Your task to perform on an android device: change your default location settings in chrome Image 0: 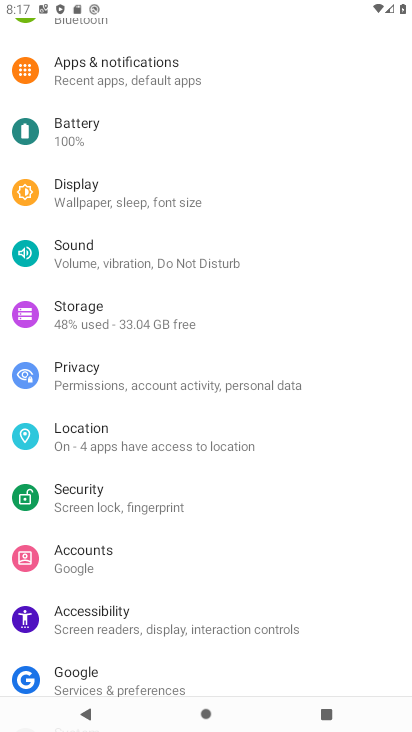
Step 0: press home button
Your task to perform on an android device: change your default location settings in chrome Image 1: 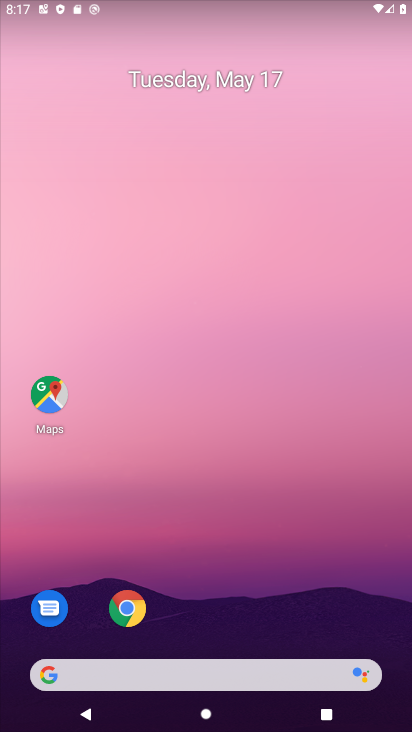
Step 1: drag from (366, 614) to (355, 128)
Your task to perform on an android device: change your default location settings in chrome Image 2: 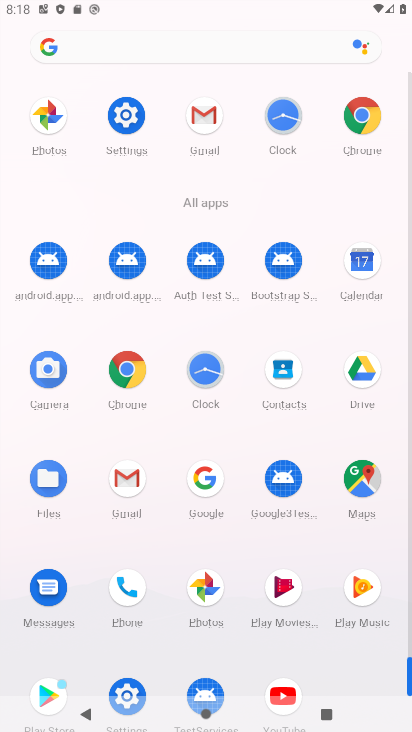
Step 2: click (139, 373)
Your task to perform on an android device: change your default location settings in chrome Image 3: 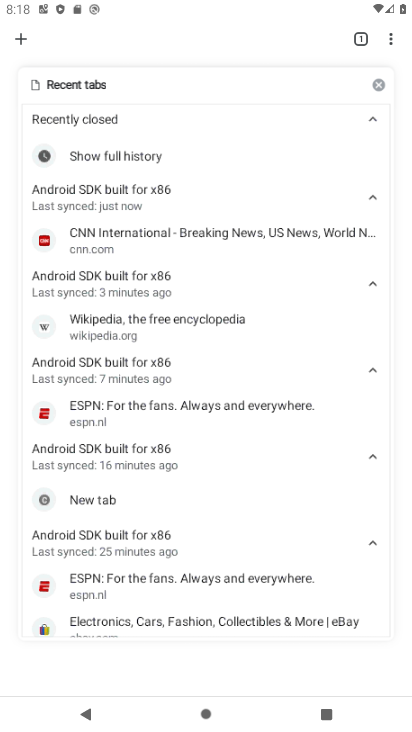
Step 3: press back button
Your task to perform on an android device: change your default location settings in chrome Image 4: 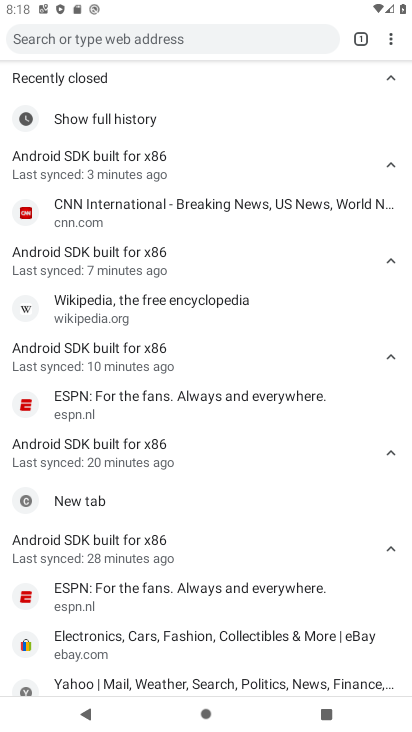
Step 4: click (386, 42)
Your task to perform on an android device: change your default location settings in chrome Image 5: 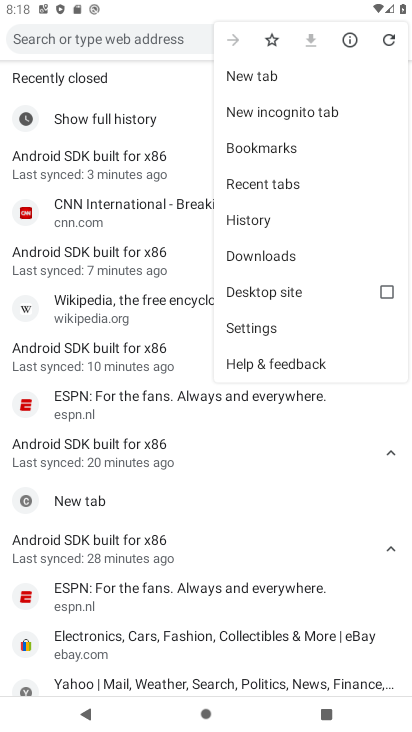
Step 5: click (287, 331)
Your task to perform on an android device: change your default location settings in chrome Image 6: 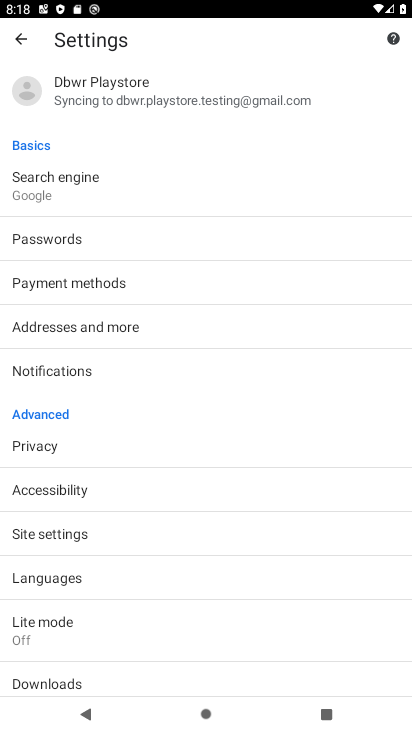
Step 6: click (316, 535)
Your task to perform on an android device: change your default location settings in chrome Image 7: 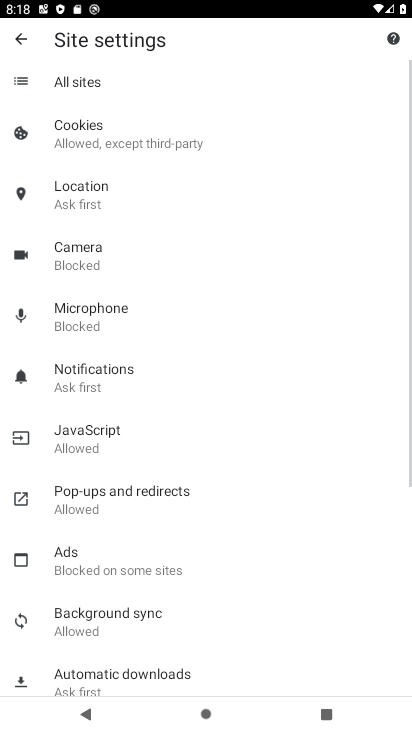
Step 7: drag from (331, 616) to (331, 484)
Your task to perform on an android device: change your default location settings in chrome Image 8: 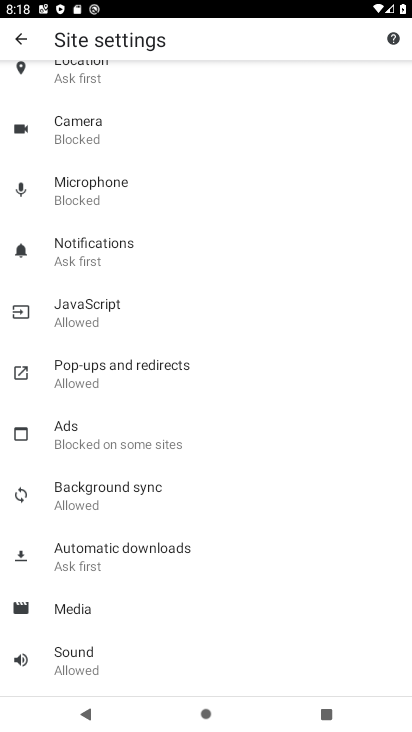
Step 8: drag from (339, 626) to (340, 503)
Your task to perform on an android device: change your default location settings in chrome Image 9: 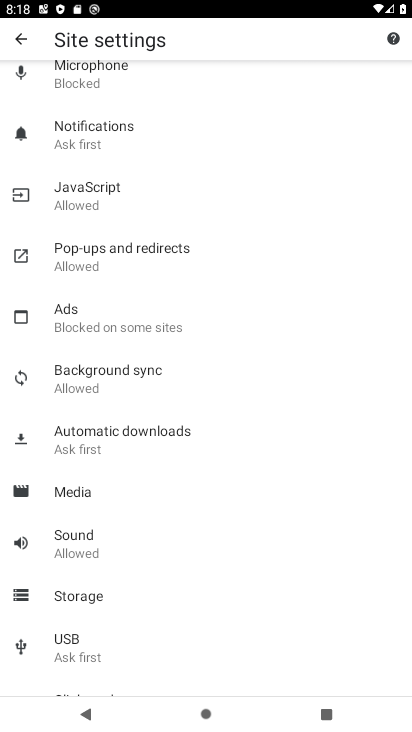
Step 9: drag from (331, 626) to (334, 499)
Your task to perform on an android device: change your default location settings in chrome Image 10: 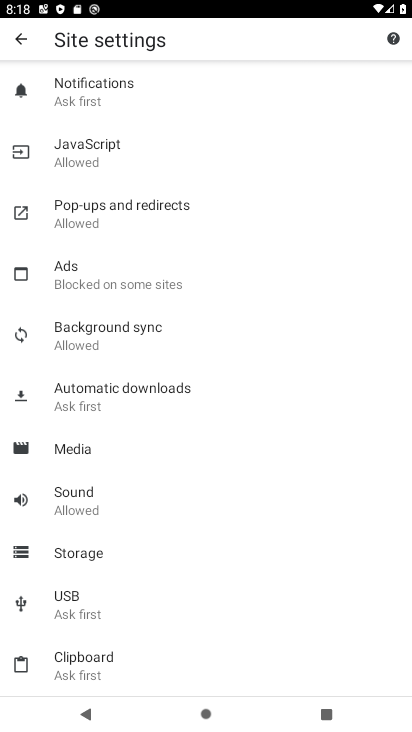
Step 10: drag from (319, 611) to (304, 508)
Your task to perform on an android device: change your default location settings in chrome Image 11: 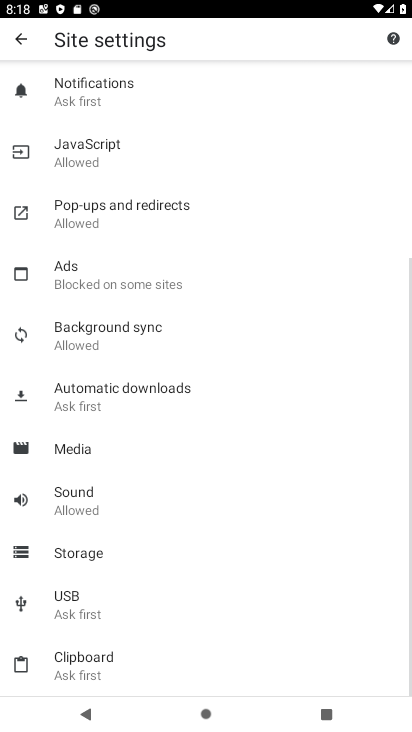
Step 11: drag from (336, 361) to (328, 473)
Your task to perform on an android device: change your default location settings in chrome Image 12: 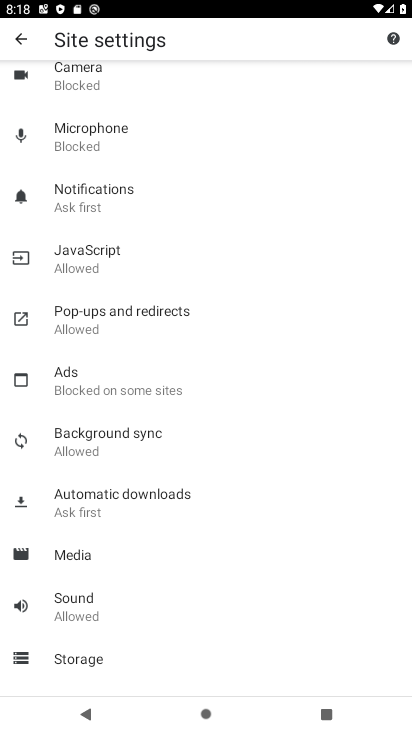
Step 12: drag from (324, 289) to (327, 390)
Your task to perform on an android device: change your default location settings in chrome Image 13: 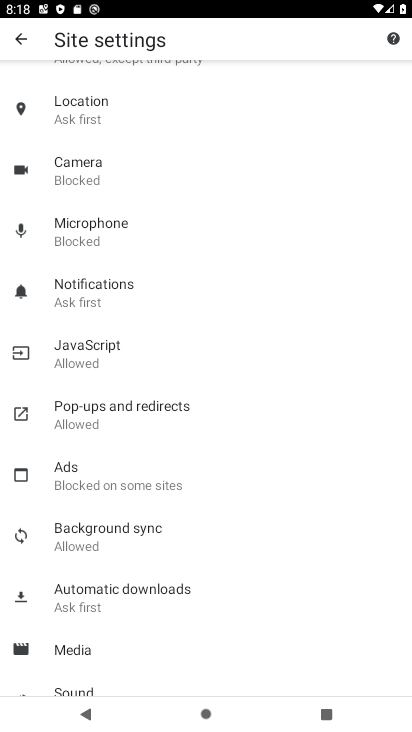
Step 13: drag from (343, 255) to (334, 357)
Your task to perform on an android device: change your default location settings in chrome Image 14: 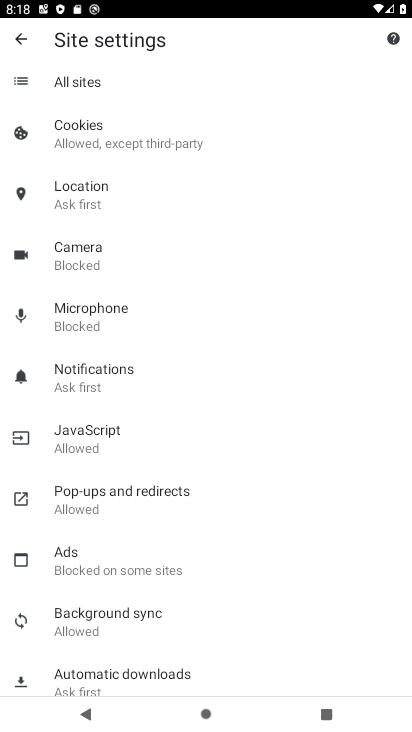
Step 14: drag from (338, 253) to (335, 353)
Your task to perform on an android device: change your default location settings in chrome Image 15: 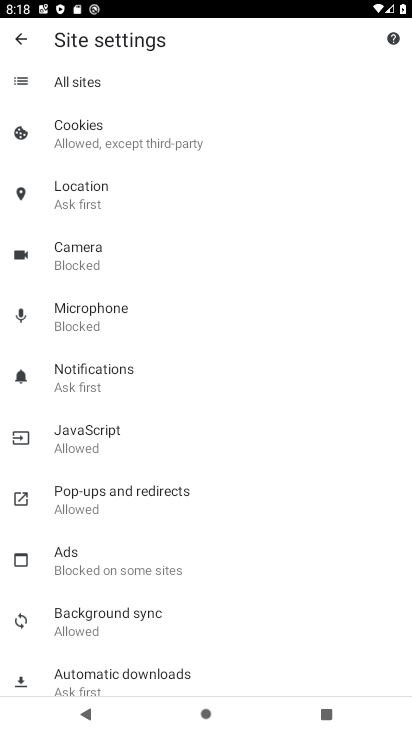
Step 15: click (102, 203)
Your task to perform on an android device: change your default location settings in chrome Image 16: 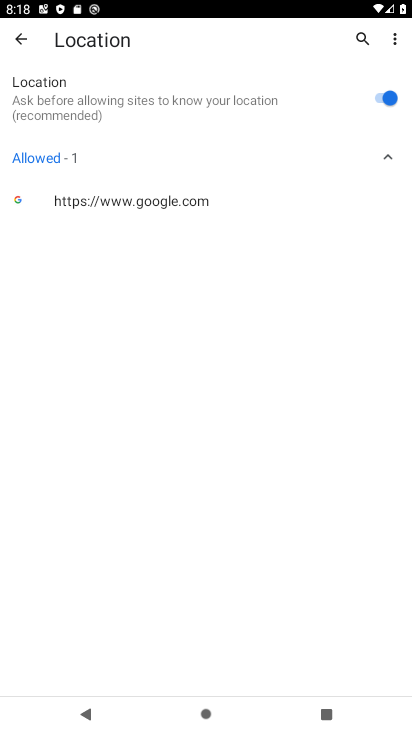
Step 16: task complete